Your task to perform on an android device: Set the phone to "Do not disturb". Image 0: 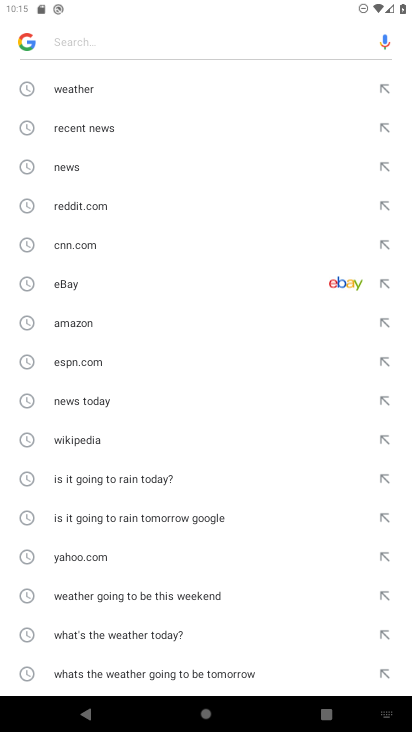
Step 0: press home button
Your task to perform on an android device: Set the phone to "Do not disturb". Image 1: 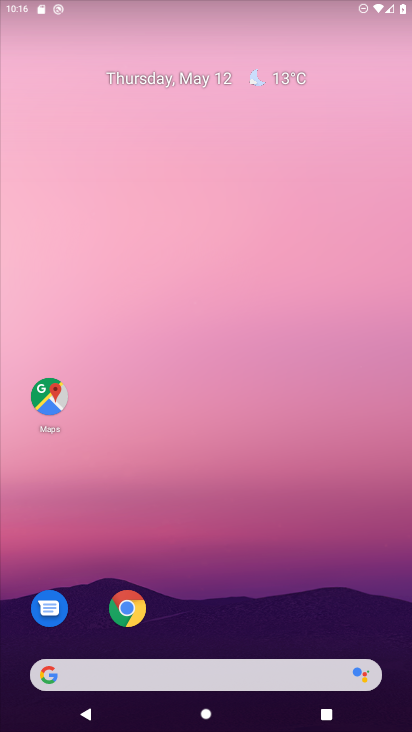
Step 1: drag from (253, 563) to (294, 131)
Your task to perform on an android device: Set the phone to "Do not disturb". Image 2: 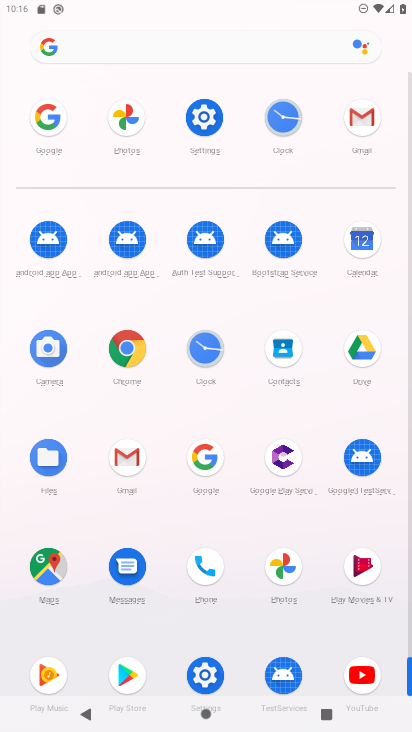
Step 2: click (206, 118)
Your task to perform on an android device: Set the phone to "Do not disturb". Image 3: 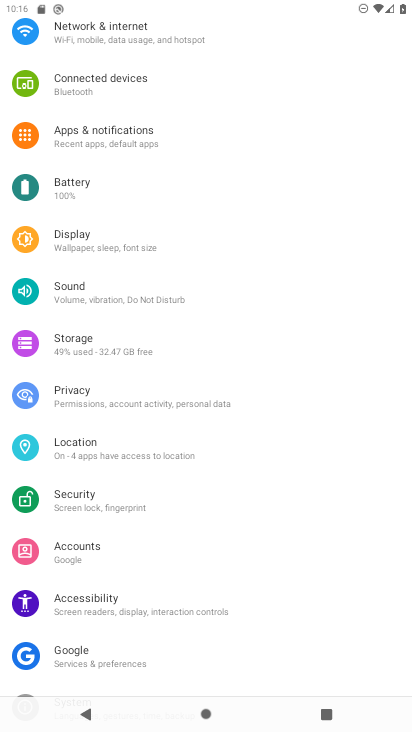
Step 3: click (140, 289)
Your task to perform on an android device: Set the phone to "Do not disturb". Image 4: 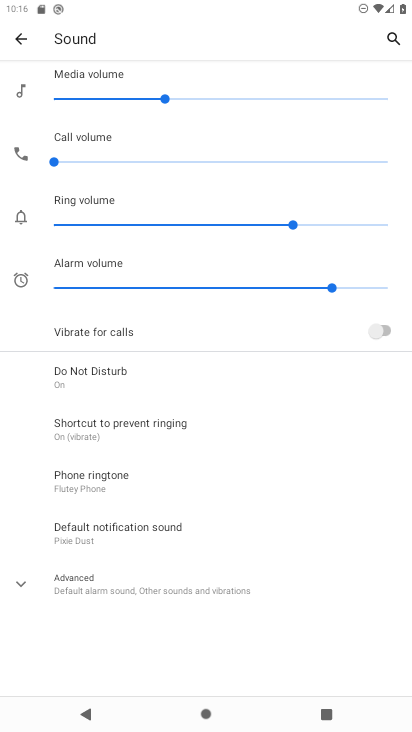
Step 4: click (121, 385)
Your task to perform on an android device: Set the phone to "Do not disturb". Image 5: 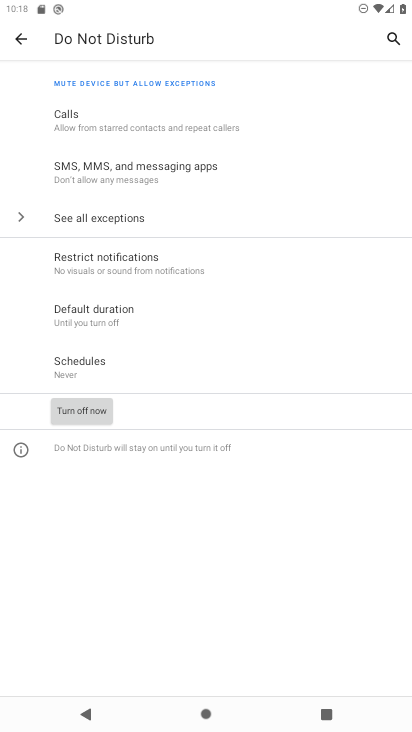
Step 5: task complete